Your task to perform on an android device: Open location settings Image 0: 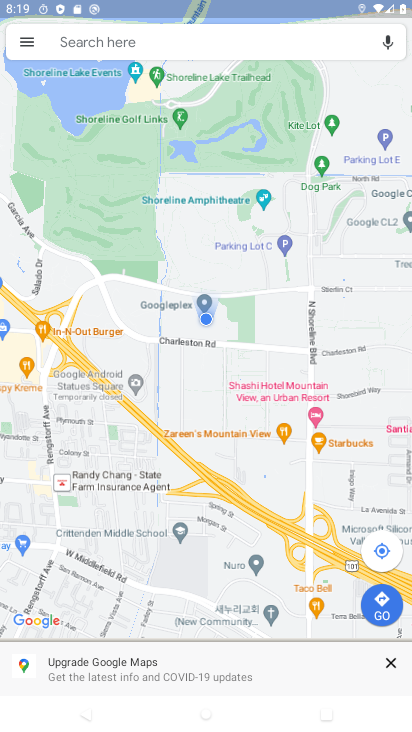
Step 0: press home button
Your task to perform on an android device: Open location settings Image 1: 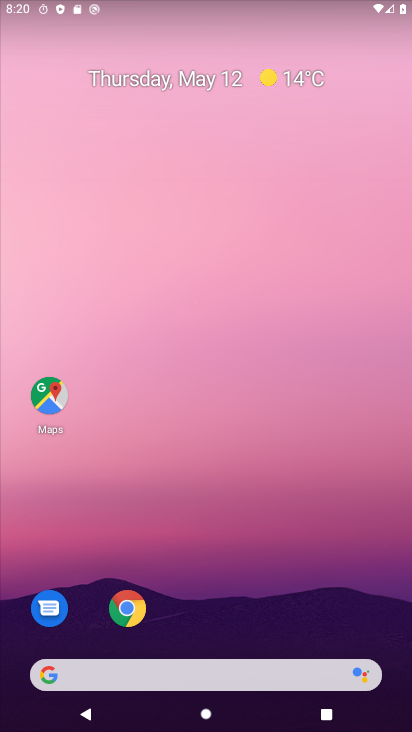
Step 1: drag from (216, 569) to (308, 233)
Your task to perform on an android device: Open location settings Image 2: 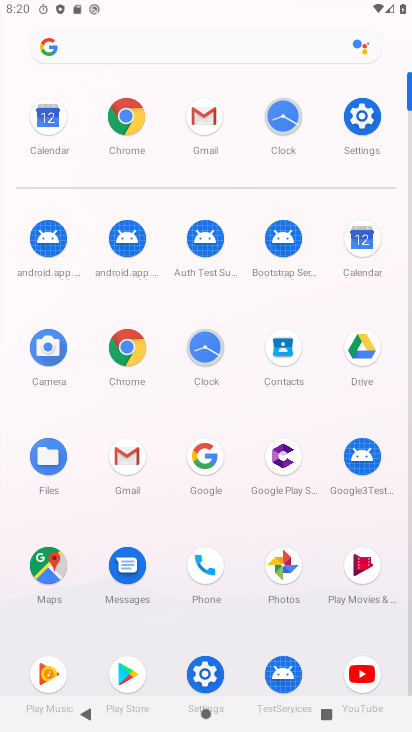
Step 2: click (361, 112)
Your task to perform on an android device: Open location settings Image 3: 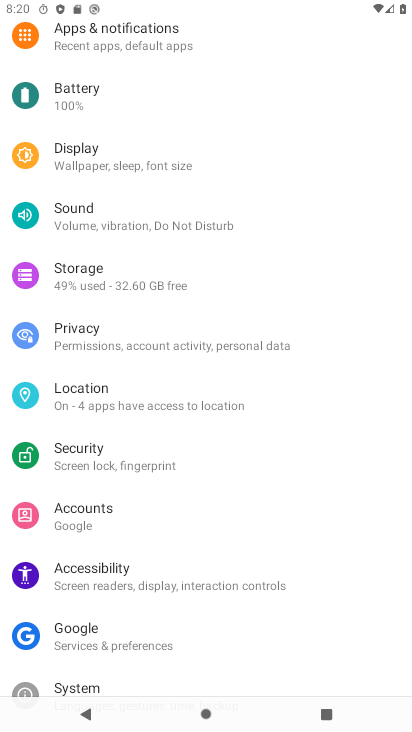
Step 3: click (158, 401)
Your task to perform on an android device: Open location settings Image 4: 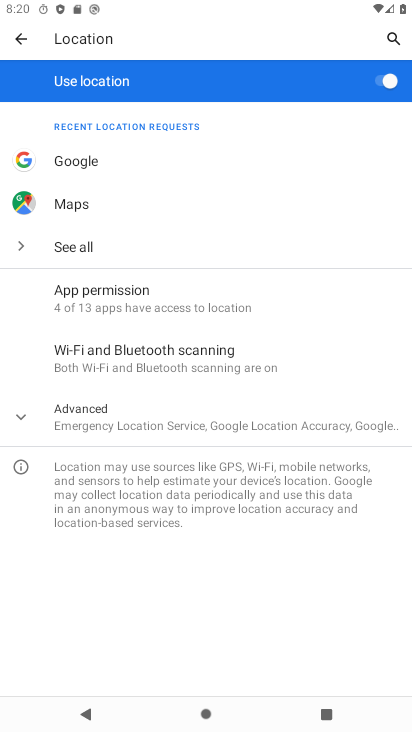
Step 4: task complete